Your task to perform on an android device: toggle notification dots Image 0: 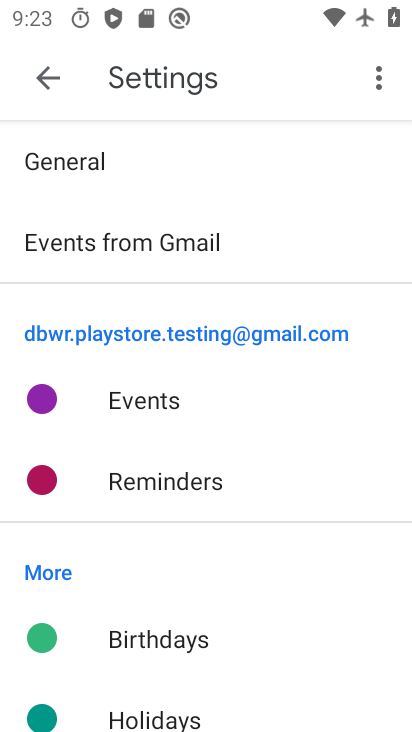
Step 0: press home button
Your task to perform on an android device: toggle notification dots Image 1: 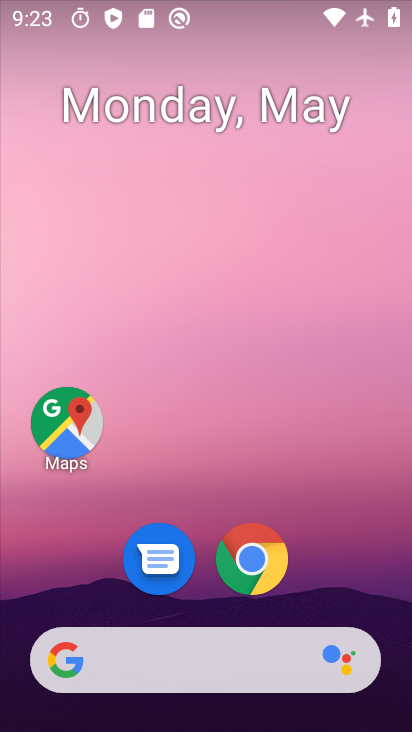
Step 1: drag from (210, 611) to (223, 0)
Your task to perform on an android device: toggle notification dots Image 2: 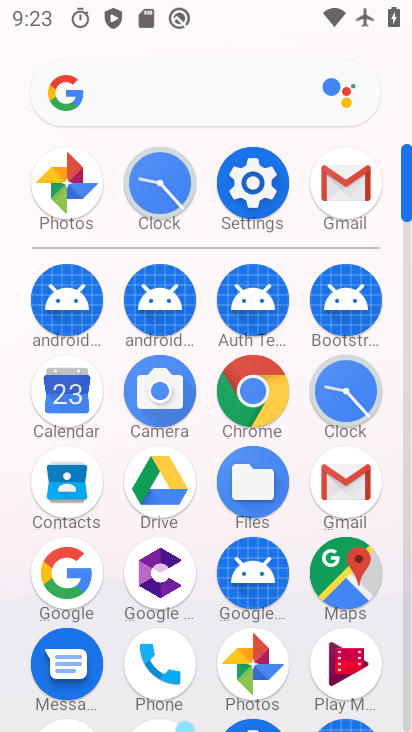
Step 2: click (243, 194)
Your task to perform on an android device: toggle notification dots Image 3: 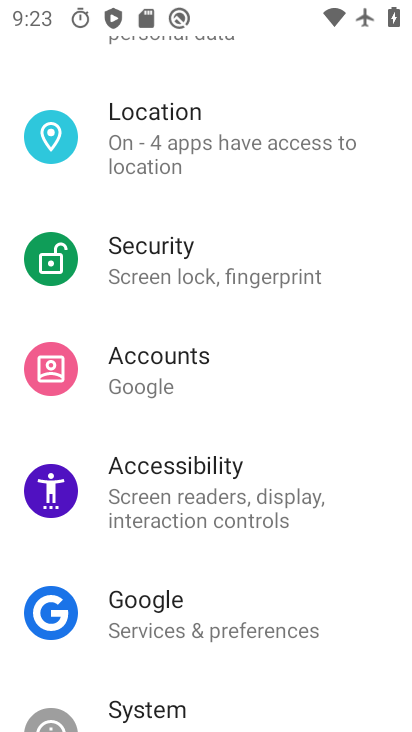
Step 3: drag from (183, 218) to (222, 428)
Your task to perform on an android device: toggle notification dots Image 4: 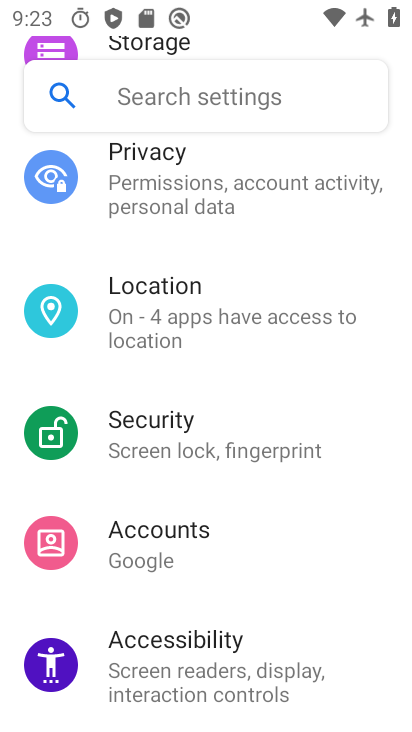
Step 4: drag from (170, 284) to (204, 464)
Your task to perform on an android device: toggle notification dots Image 5: 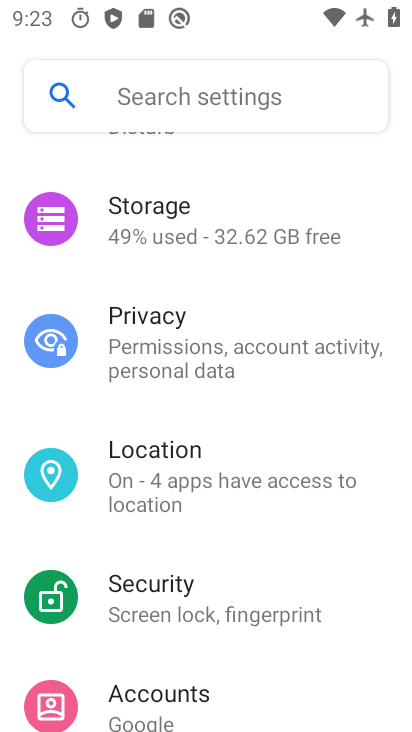
Step 5: drag from (195, 332) to (216, 514)
Your task to perform on an android device: toggle notification dots Image 6: 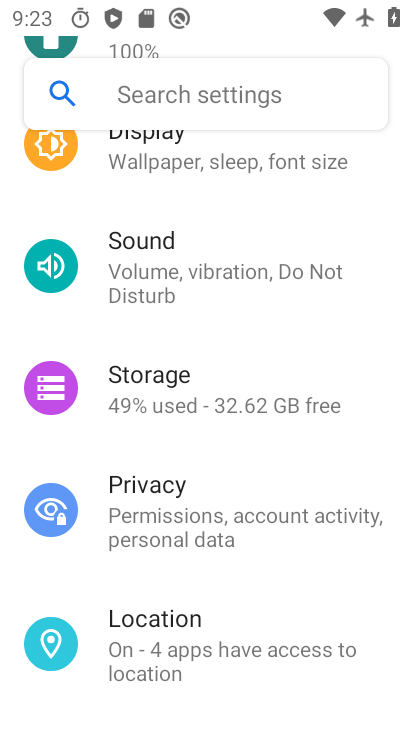
Step 6: drag from (190, 333) to (221, 463)
Your task to perform on an android device: toggle notification dots Image 7: 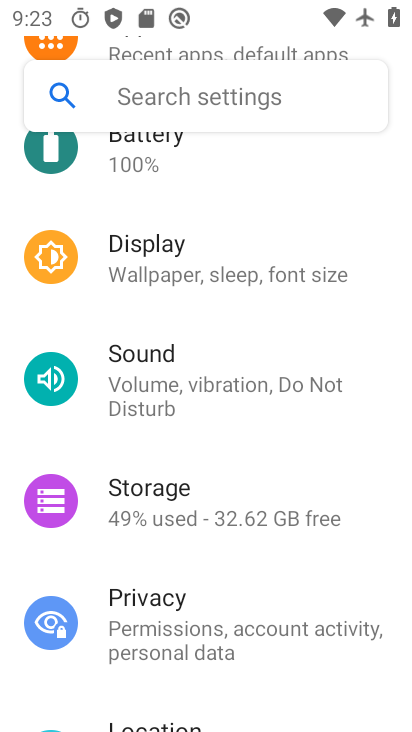
Step 7: drag from (196, 305) to (208, 572)
Your task to perform on an android device: toggle notification dots Image 8: 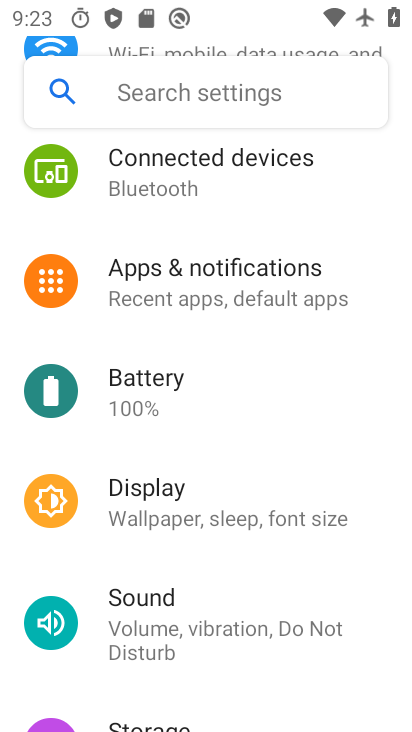
Step 8: click (213, 269)
Your task to perform on an android device: toggle notification dots Image 9: 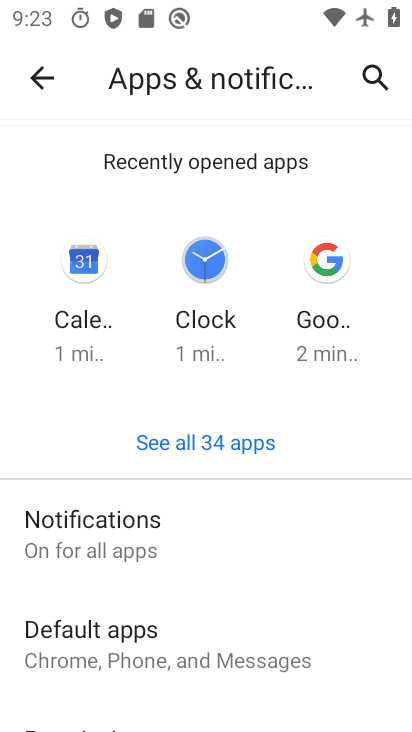
Step 9: click (84, 549)
Your task to perform on an android device: toggle notification dots Image 10: 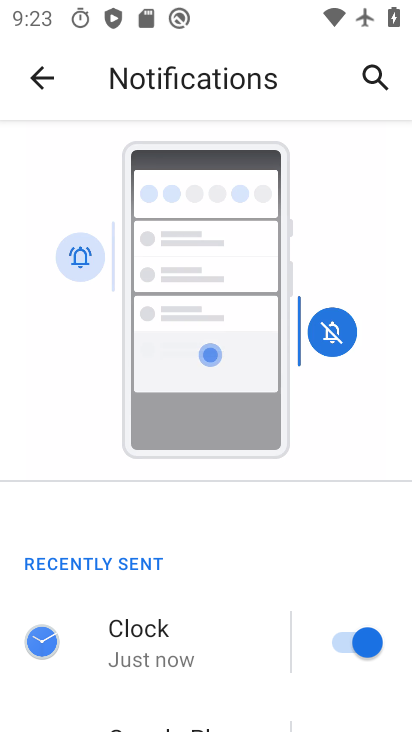
Step 10: drag from (141, 400) to (141, 299)
Your task to perform on an android device: toggle notification dots Image 11: 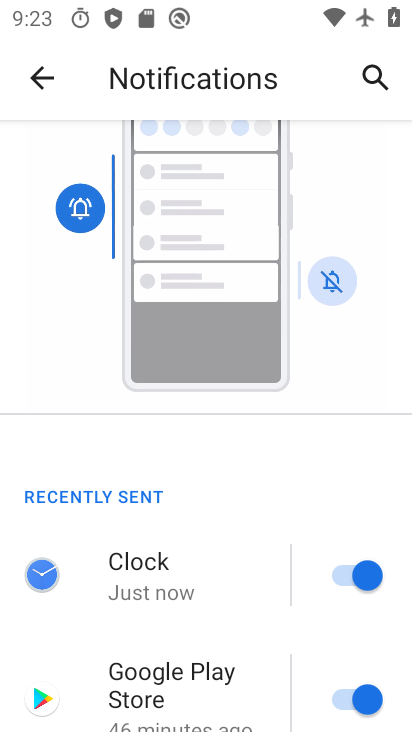
Step 11: drag from (182, 601) to (170, 320)
Your task to perform on an android device: toggle notification dots Image 12: 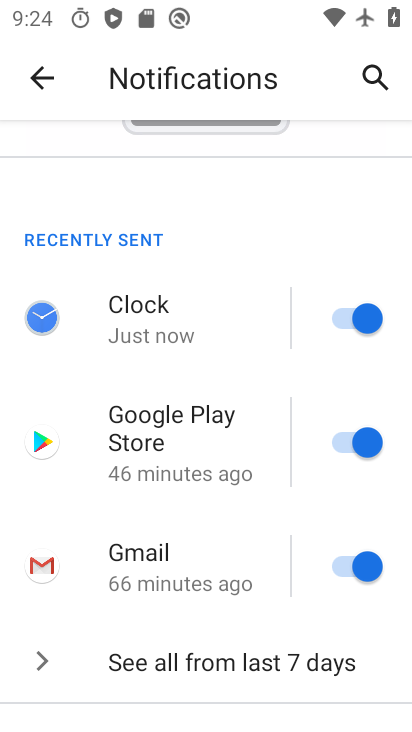
Step 12: drag from (157, 641) to (164, 381)
Your task to perform on an android device: toggle notification dots Image 13: 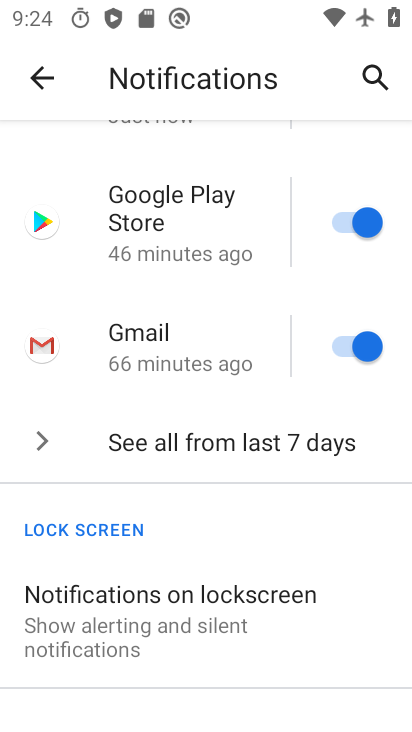
Step 13: drag from (185, 621) to (182, 199)
Your task to perform on an android device: toggle notification dots Image 14: 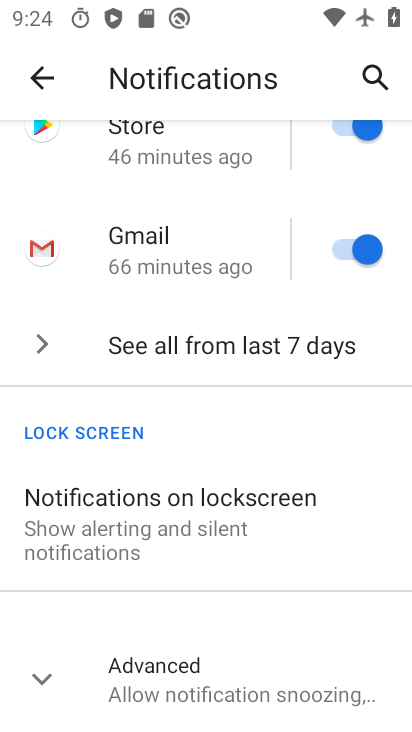
Step 14: click (200, 678)
Your task to perform on an android device: toggle notification dots Image 15: 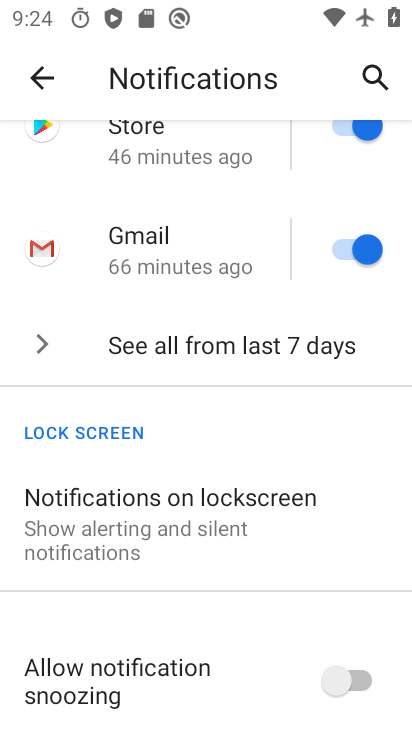
Step 15: drag from (208, 703) to (233, 171)
Your task to perform on an android device: toggle notification dots Image 16: 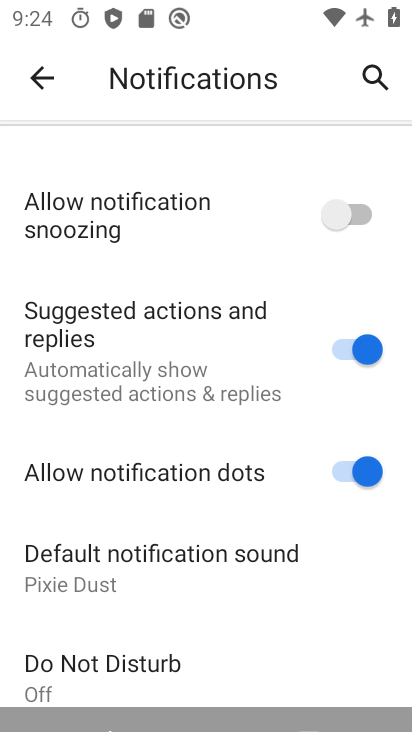
Step 16: click (340, 477)
Your task to perform on an android device: toggle notification dots Image 17: 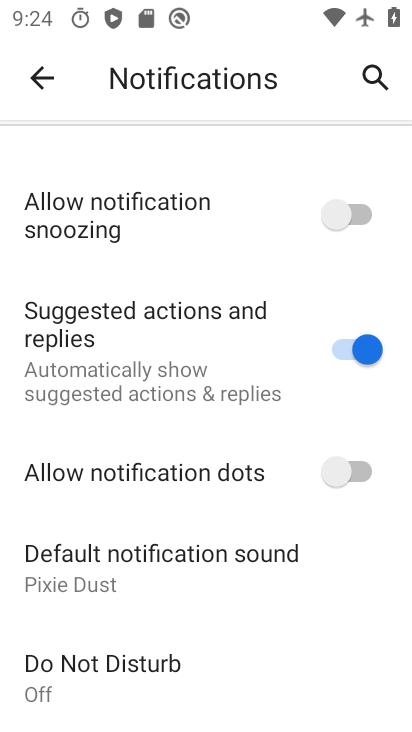
Step 17: task complete